Your task to perform on an android device: Toggle the flashlight Image 0: 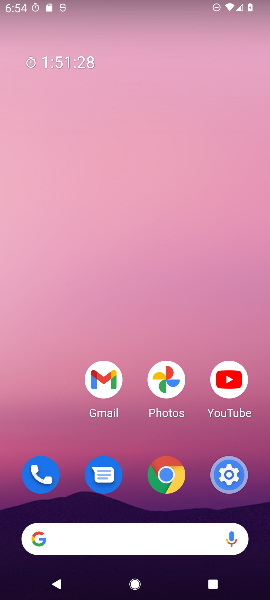
Step 0: press home button
Your task to perform on an android device: Toggle the flashlight Image 1: 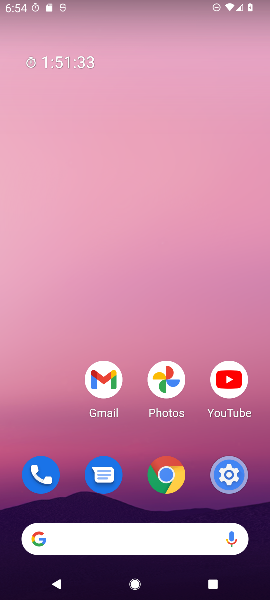
Step 1: drag from (148, 0) to (150, 257)
Your task to perform on an android device: Toggle the flashlight Image 2: 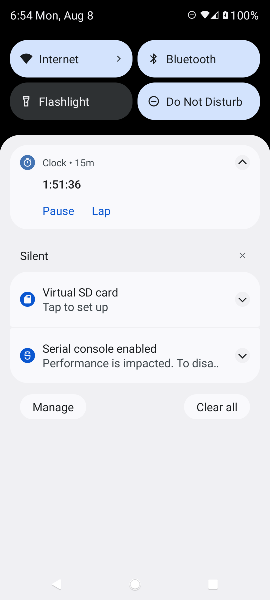
Step 2: drag from (128, 23) to (149, 360)
Your task to perform on an android device: Toggle the flashlight Image 3: 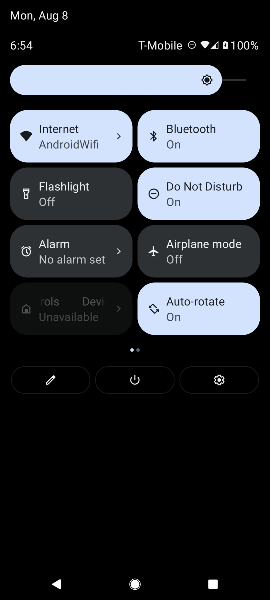
Step 3: click (71, 200)
Your task to perform on an android device: Toggle the flashlight Image 4: 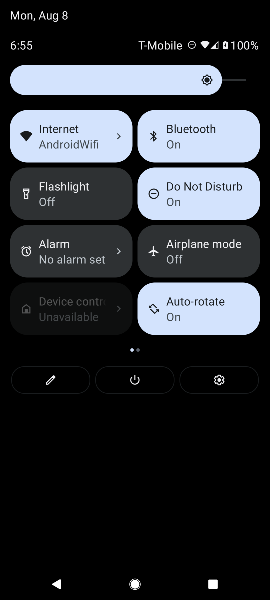
Step 4: task complete